Your task to perform on an android device: Open the web browser Image 0: 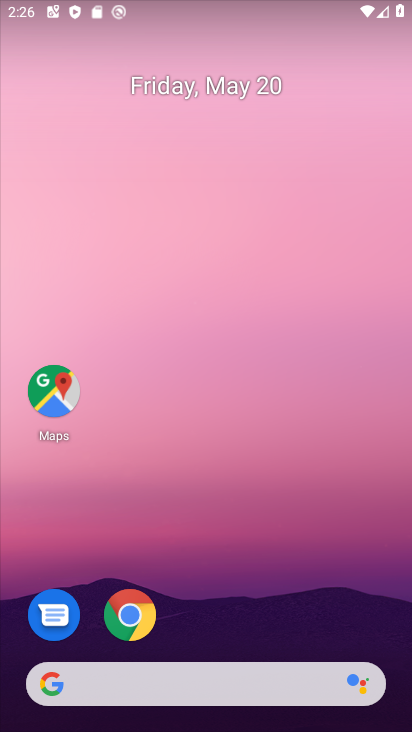
Step 0: drag from (215, 646) to (229, 340)
Your task to perform on an android device: Open the web browser Image 1: 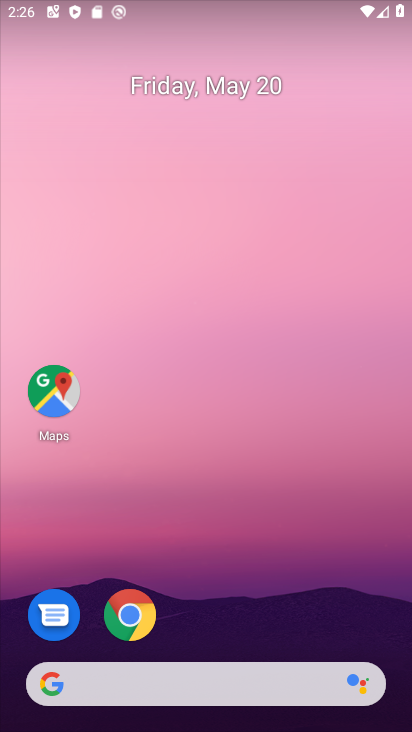
Step 1: click (117, 617)
Your task to perform on an android device: Open the web browser Image 2: 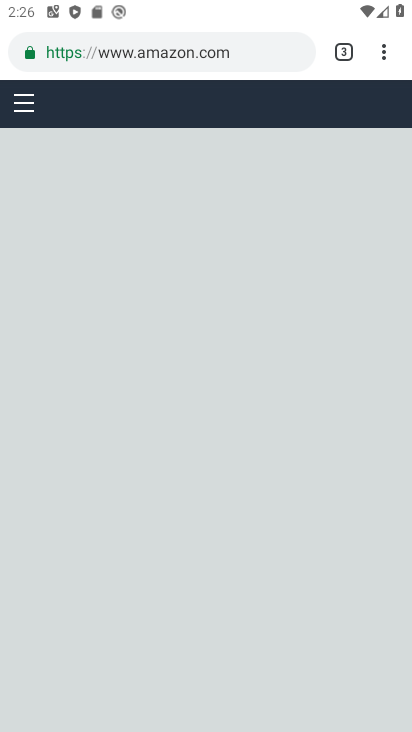
Step 2: task complete